Your task to perform on an android device: turn pop-ups off in chrome Image 0: 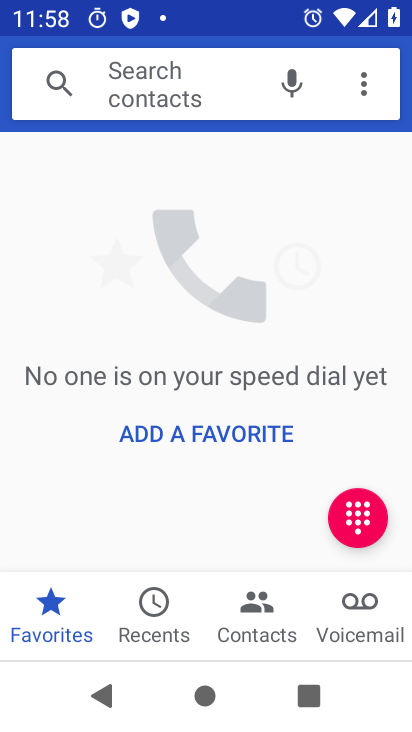
Step 0: press back button
Your task to perform on an android device: turn pop-ups off in chrome Image 1: 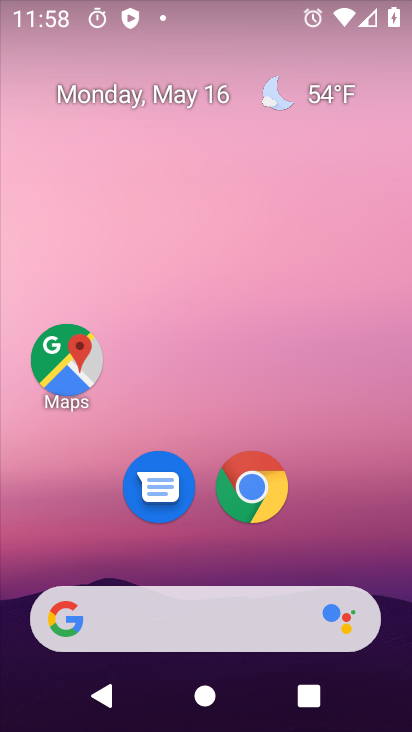
Step 1: click (238, 485)
Your task to perform on an android device: turn pop-ups off in chrome Image 2: 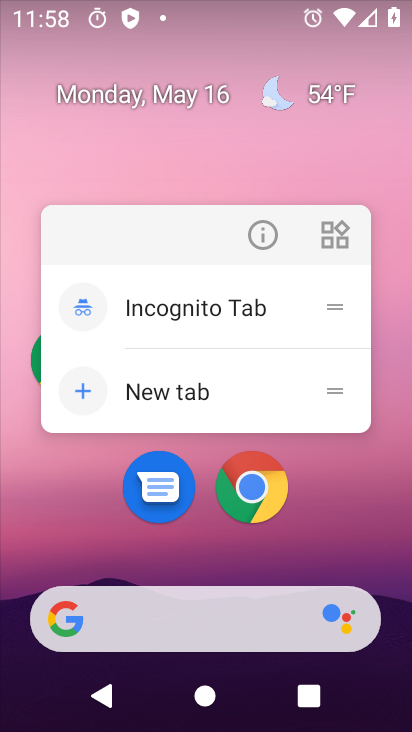
Step 2: click (259, 496)
Your task to perform on an android device: turn pop-ups off in chrome Image 3: 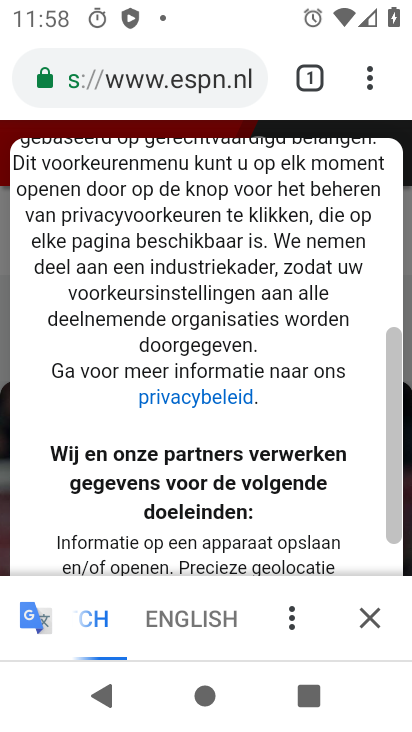
Step 3: drag from (372, 76) to (96, 527)
Your task to perform on an android device: turn pop-ups off in chrome Image 4: 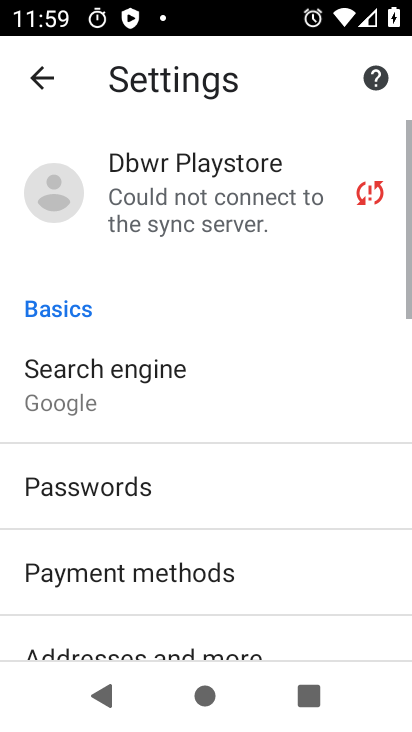
Step 4: drag from (213, 588) to (260, 169)
Your task to perform on an android device: turn pop-ups off in chrome Image 5: 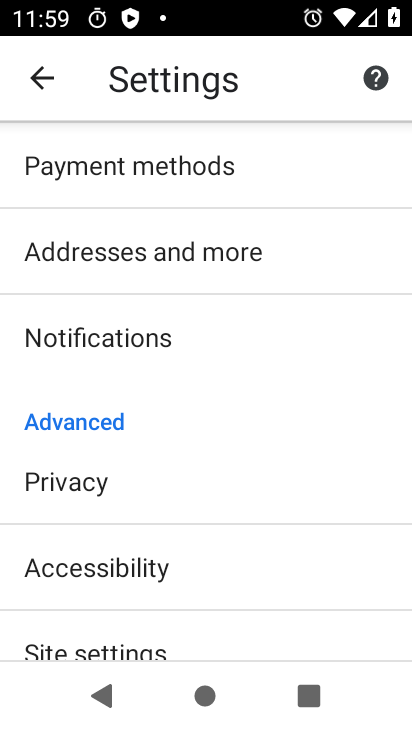
Step 5: drag from (143, 599) to (251, 199)
Your task to perform on an android device: turn pop-ups off in chrome Image 6: 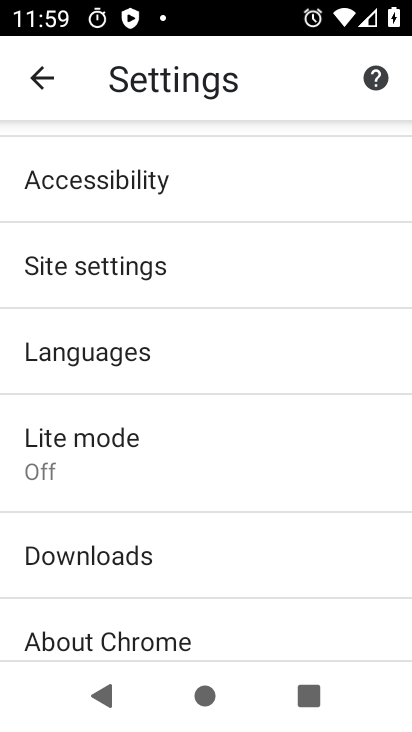
Step 6: click (126, 261)
Your task to perform on an android device: turn pop-ups off in chrome Image 7: 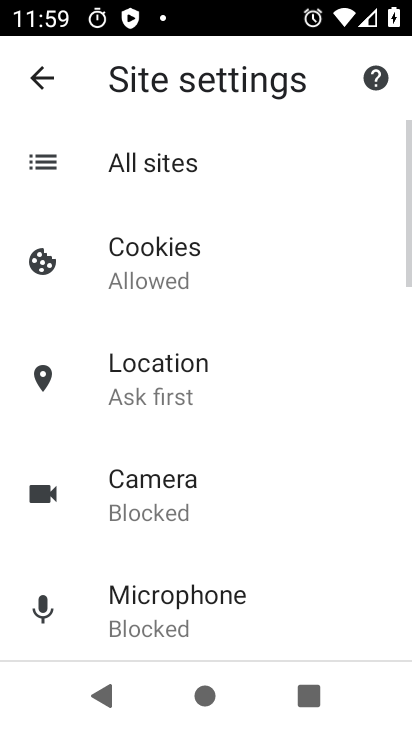
Step 7: drag from (190, 617) to (284, 238)
Your task to perform on an android device: turn pop-ups off in chrome Image 8: 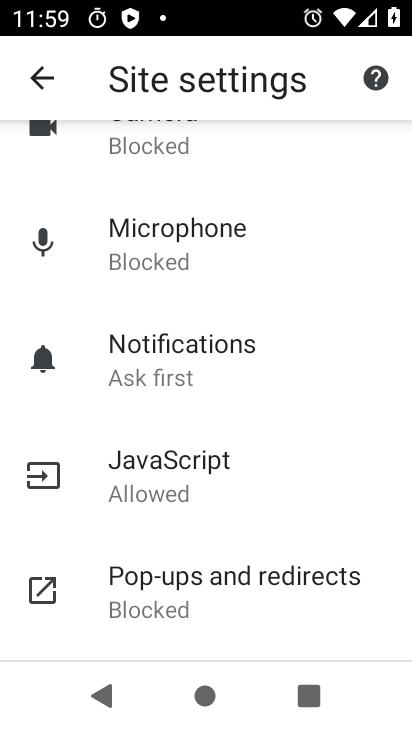
Step 8: click (187, 592)
Your task to perform on an android device: turn pop-ups off in chrome Image 9: 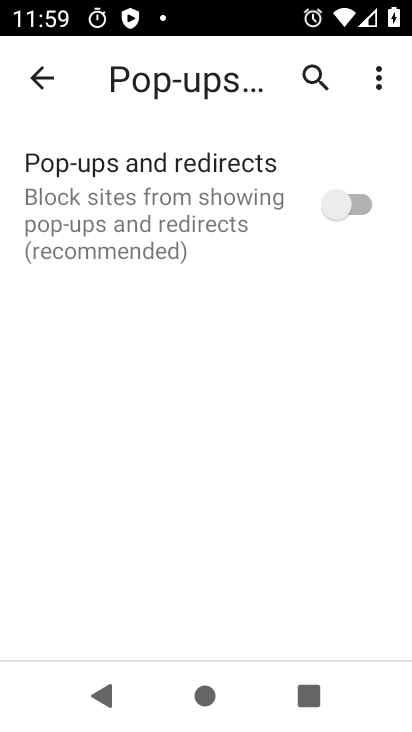
Step 9: task complete